Your task to perform on an android device: Go to ESPN.com Image 0: 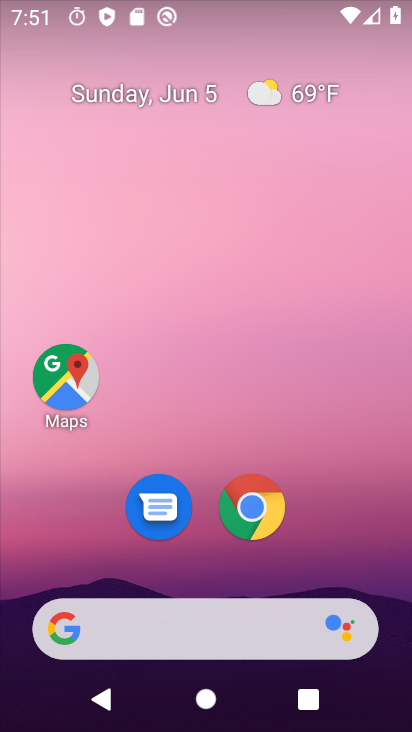
Step 0: drag from (372, 584) to (268, 19)
Your task to perform on an android device: Go to ESPN.com Image 1: 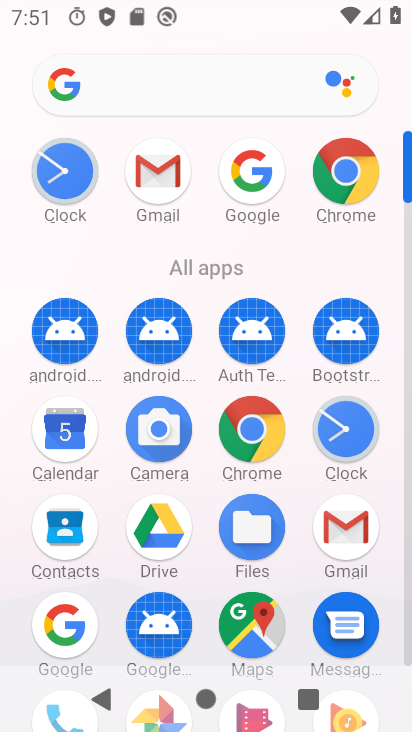
Step 1: click (253, 425)
Your task to perform on an android device: Go to ESPN.com Image 2: 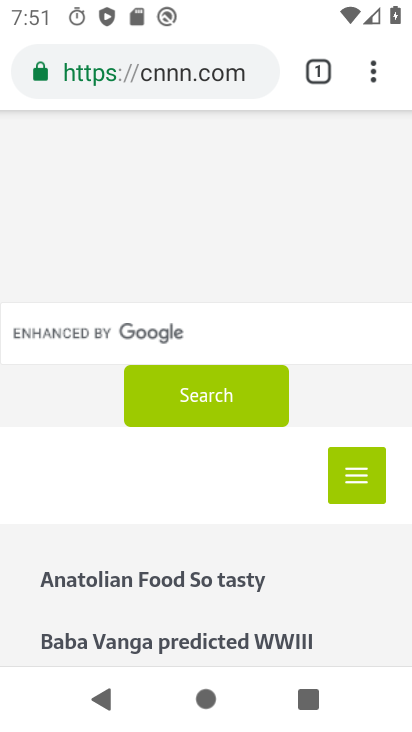
Step 2: click (203, 70)
Your task to perform on an android device: Go to ESPN.com Image 3: 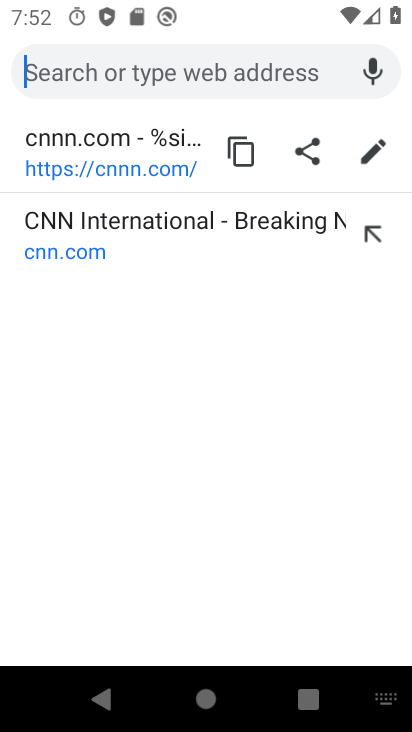
Step 3: type " ESPN.com"
Your task to perform on an android device: Go to ESPN.com Image 4: 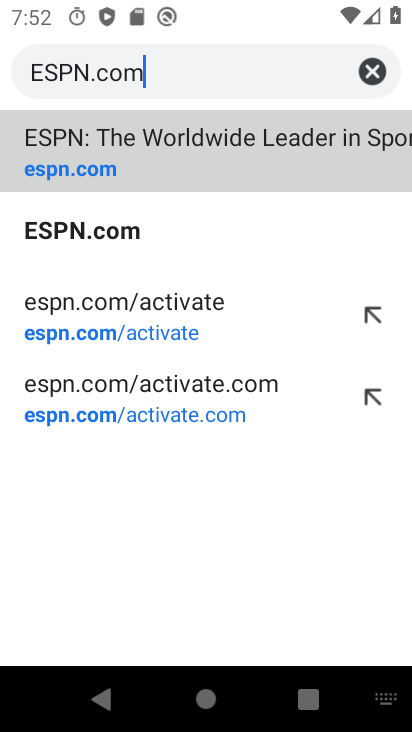
Step 4: click (154, 154)
Your task to perform on an android device: Go to ESPN.com Image 5: 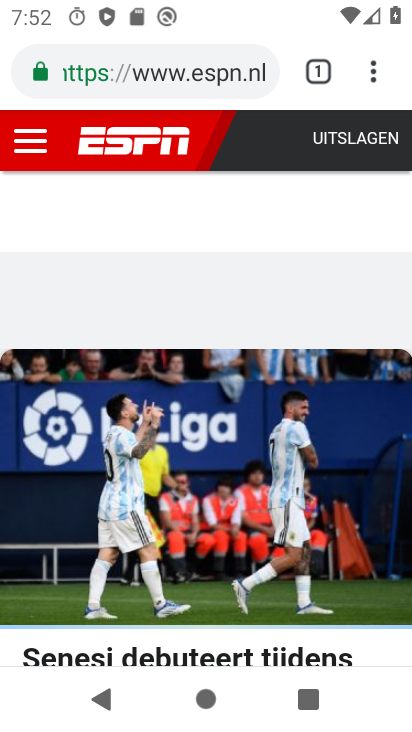
Step 5: drag from (276, 545) to (312, 142)
Your task to perform on an android device: Go to ESPN.com Image 6: 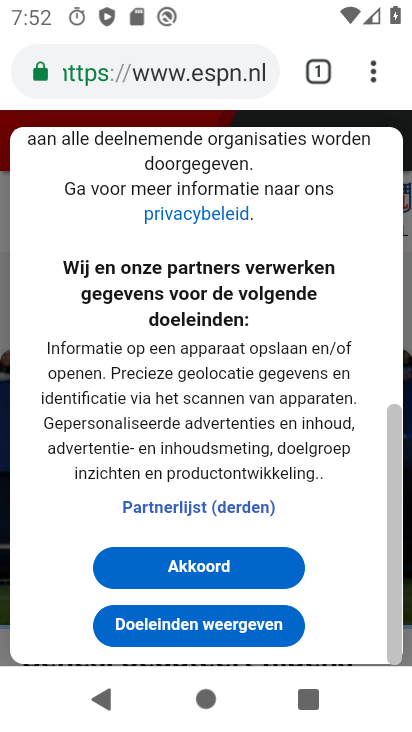
Step 6: click (236, 566)
Your task to perform on an android device: Go to ESPN.com Image 7: 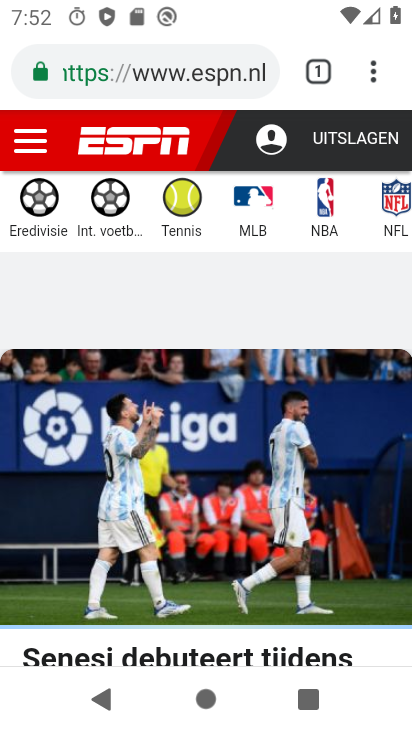
Step 7: task complete